Your task to perform on an android device: toggle notifications settings in the gmail app Image 0: 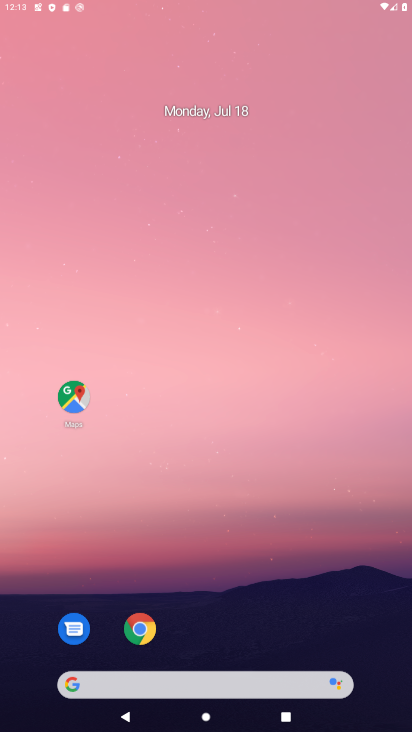
Step 0: drag from (254, 657) to (250, 243)
Your task to perform on an android device: toggle notifications settings in the gmail app Image 1: 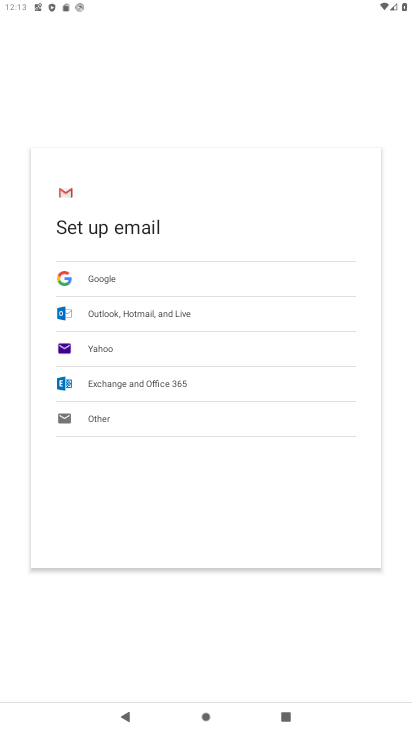
Step 1: press home button
Your task to perform on an android device: toggle notifications settings in the gmail app Image 2: 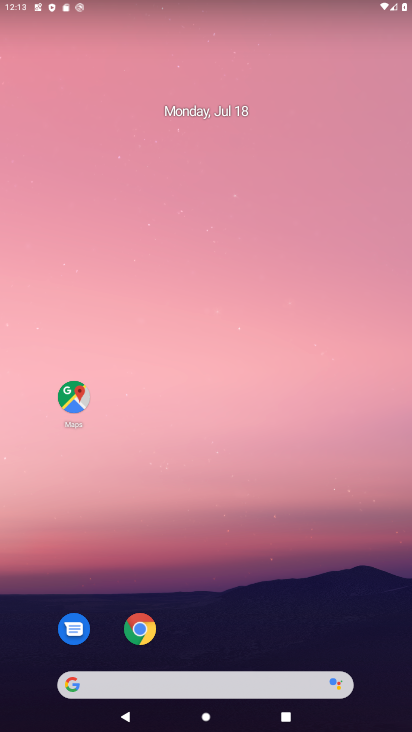
Step 2: drag from (285, 625) to (282, 84)
Your task to perform on an android device: toggle notifications settings in the gmail app Image 3: 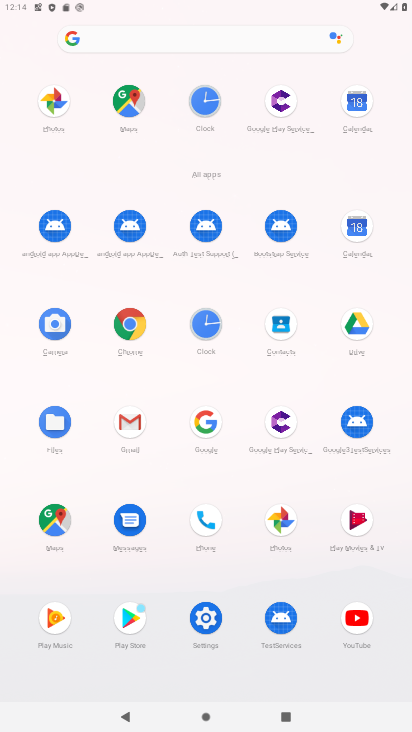
Step 3: click (132, 421)
Your task to perform on an android device: toggle notifications settings in the gmail app Image 4: 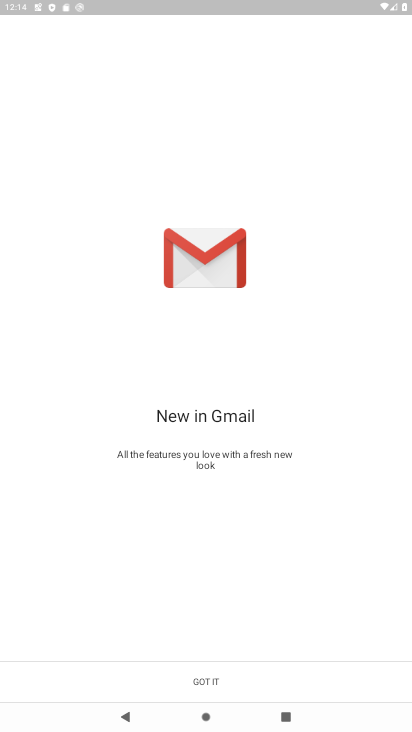
Step 4: click (176, 676)
Your task to perform on an android device: toggle notifications settings in the gmail app Image 5: 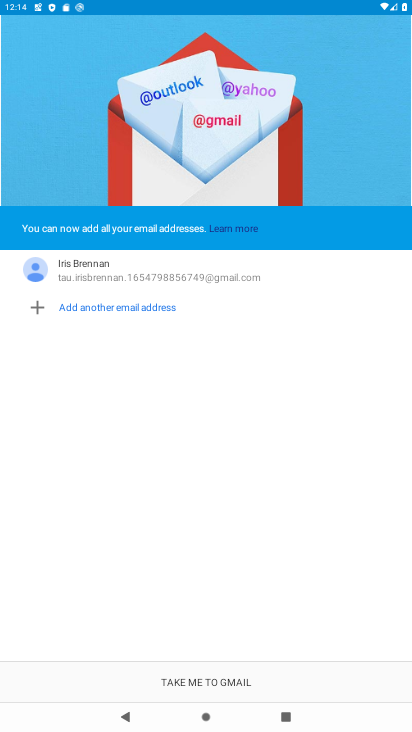
Step 5: click (176, 674)
Your task to perform on an android device: toggle notifications settings in the gmail app Image 6: 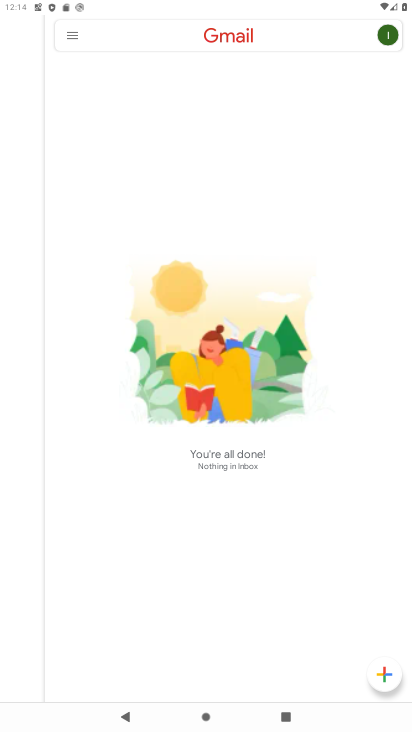
Step 6: click (67, 27)
Your task to perform on an android device: toggle notifications settings in the gmail app Image 7: 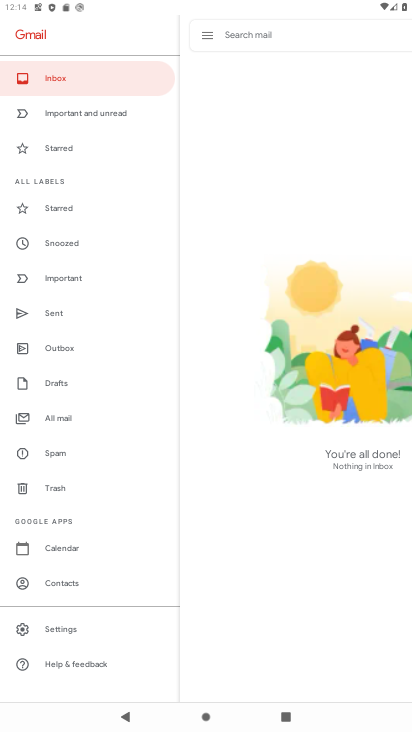
Step 7: click (84, 638)
Your task to perform on an android device: toggle notifications settings in the gmail app Image 8: 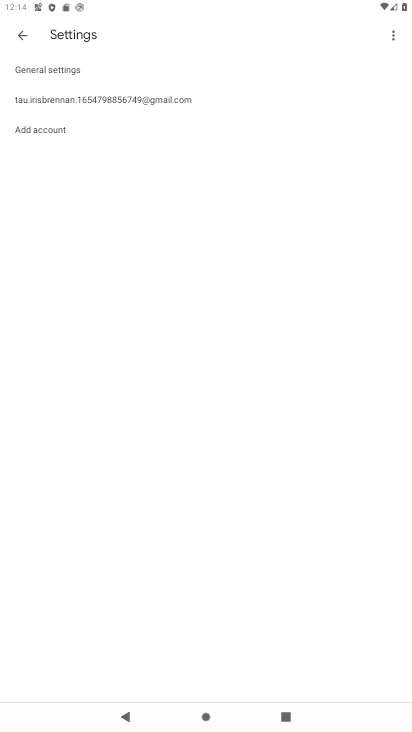
Step 8: click (72, 105)
Your task to perform on an android device: toggle notifications settings in the gmail app Image 9: 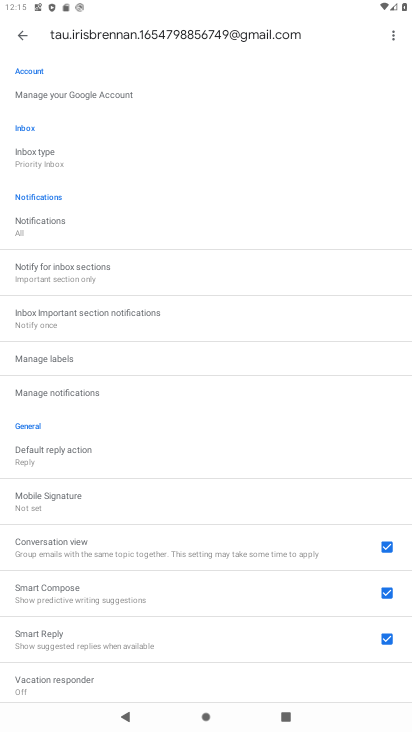
Step 9: click (75, 222)
Your task to perform on an android device: toggle notifications settings in the gmail app Image 10: 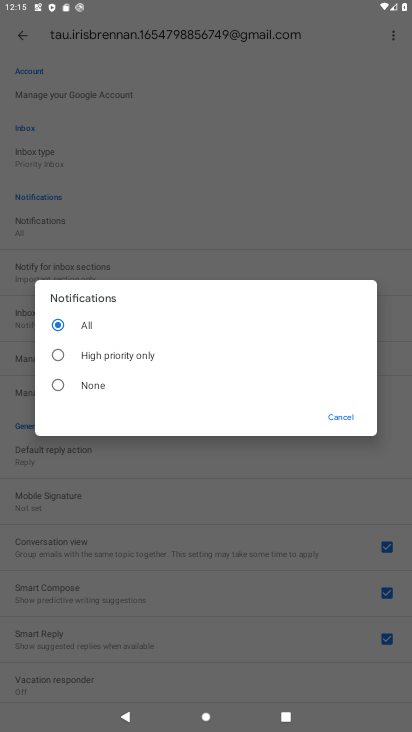
Step 10: click (92, 388)
Your task to perform on an android device: toggle notifications settings in the gmail app Image 11: 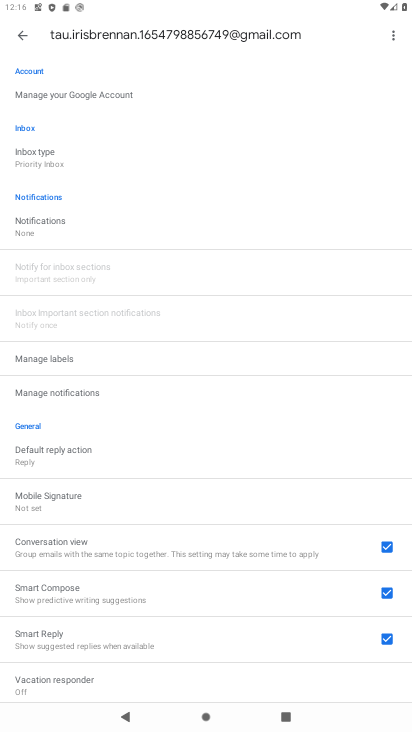
Step 11: task complete